Your task to perform on an android device: check the backup settings in the google photos Image 0: 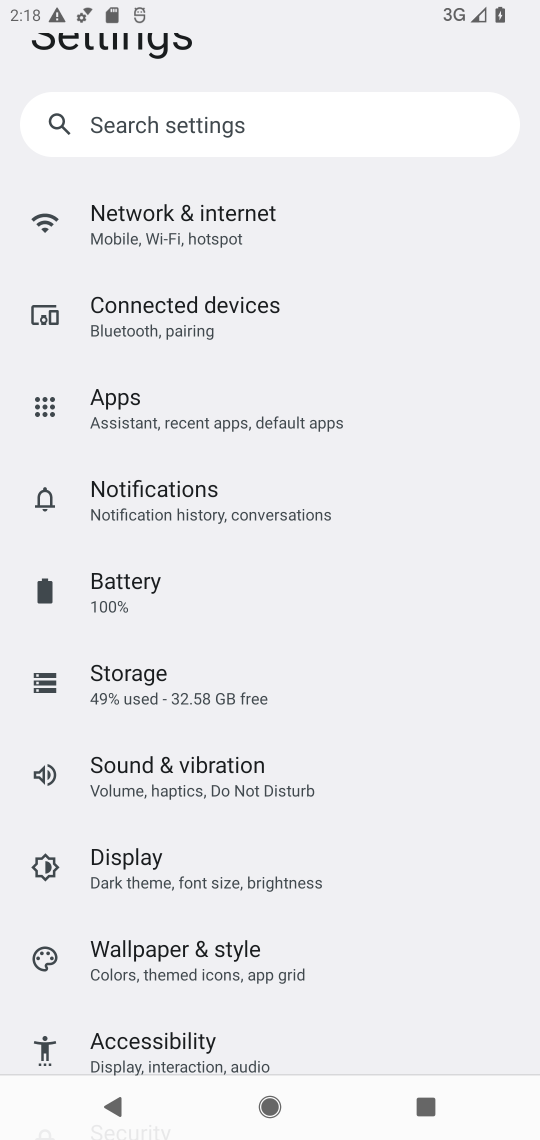
Step 0: press home button
Your task to perform on an android device: check the backup settings in the google photos Image 1: 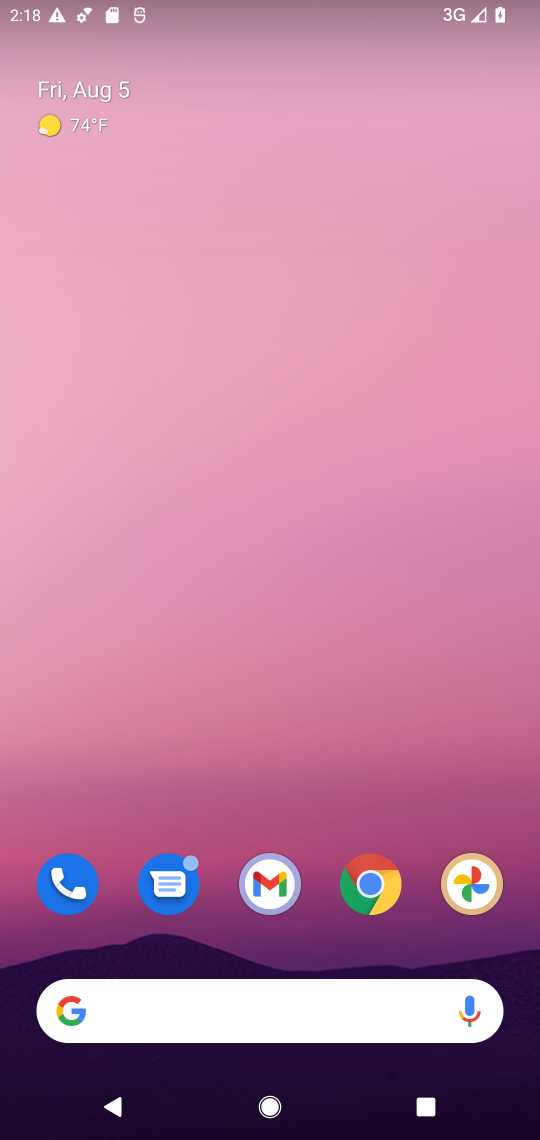
Step 1: drag from (461, 794) to (274, 127)
Your task to perform on an android device: check the backup settings in the google photos Image 2: 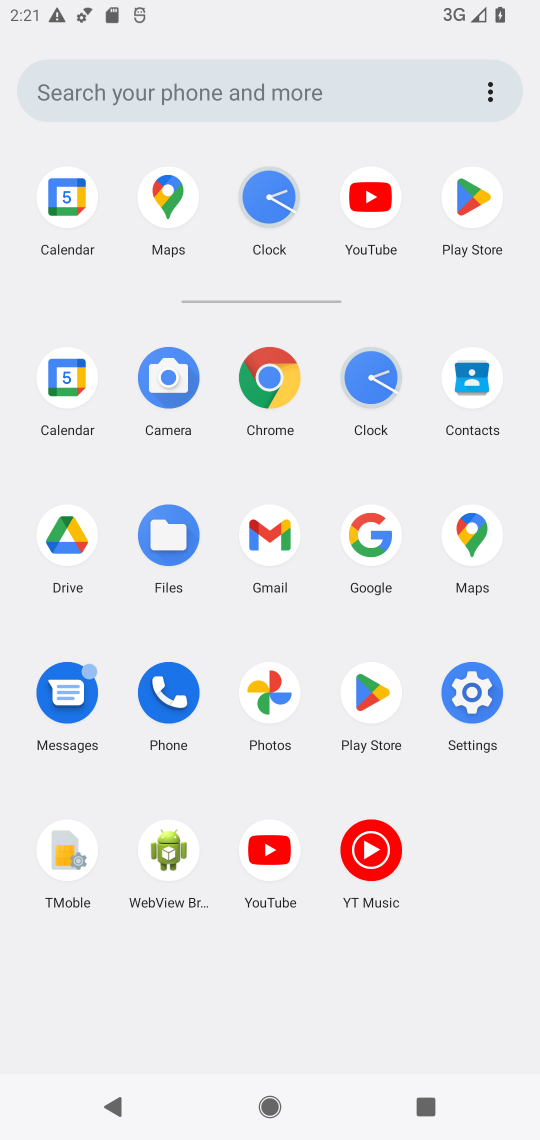
Step 2: click (266, 709)
Your task to perform on an android device: check the backup settings in the google photos Image 3: 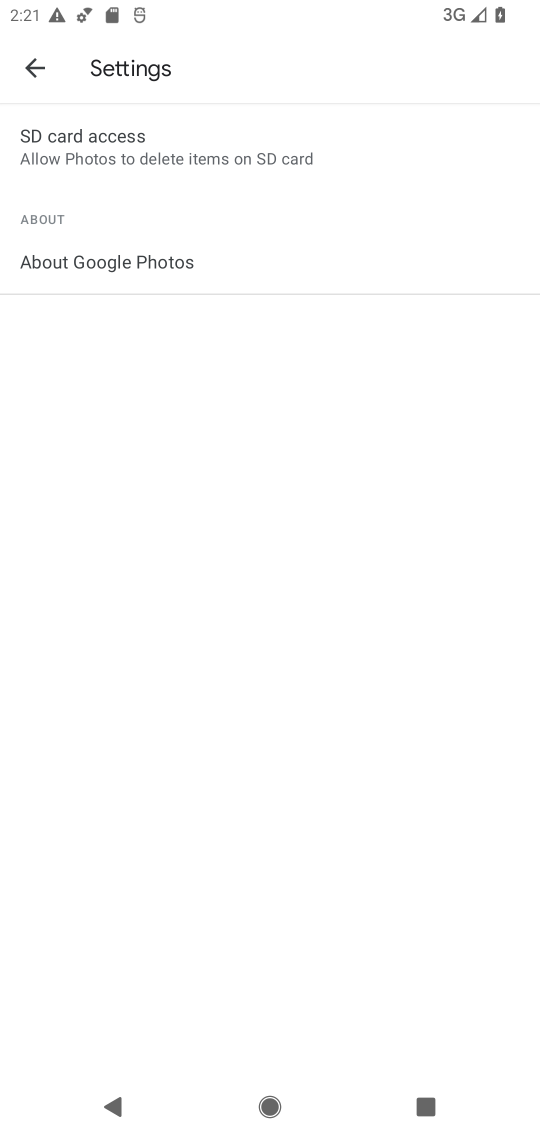
Step 3: task complete